Your task to perform on an android device: Open location settings Image 0: 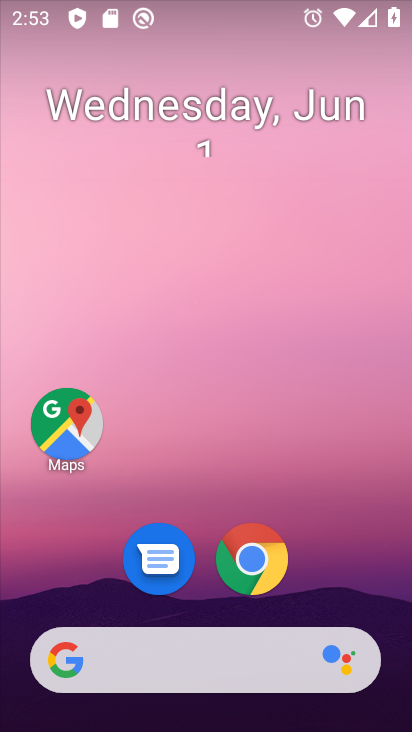
Step 0: drag from (322, 610) to (372, 19)
Your task to perform on an android device: Open location settings Image 1: 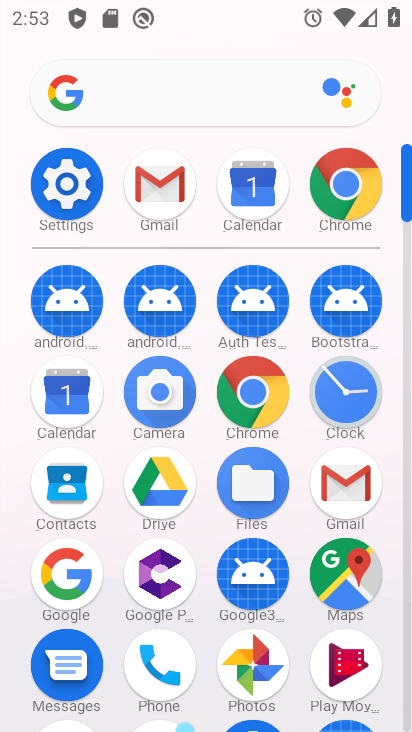
Step 1: click (74, 189)
Your task to perform on an android device: Open location settings Image 2: 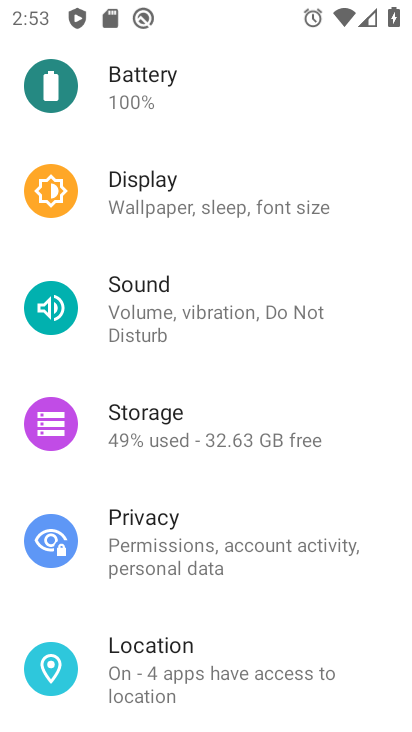
Step 2: click (197, 651)
Your task to perform on an android device: Open location settings Image 3: 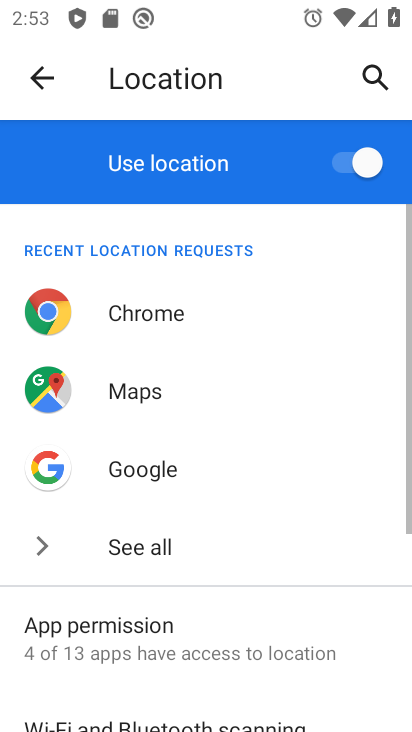
Step 3: task complete